Your task to perform on an android device: Do I have any events this weekend? Image 0: 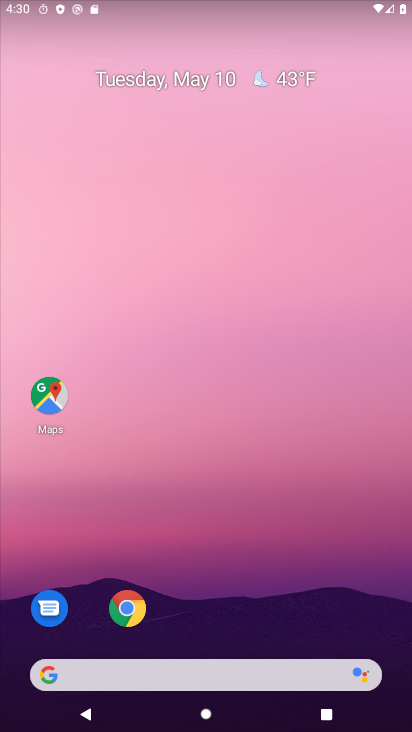
Step 0: drag from (208, 604) to (40, 53)
Your task to perform on an android device: Do I have any events this weekend? Image 1: 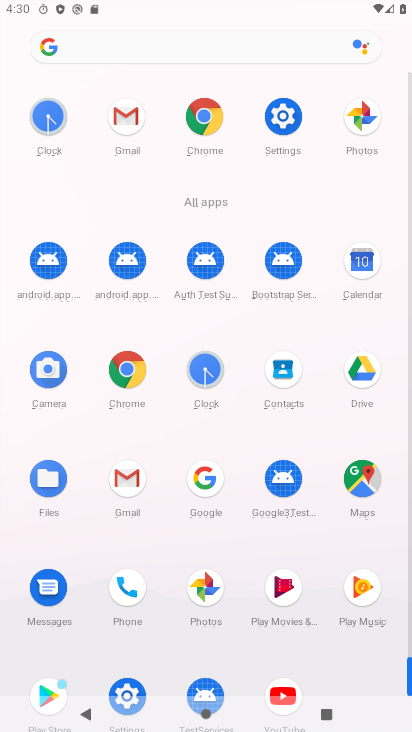
Step 1: click (352, 260)
Your task to perform on an android device: Do I have any events this weekend? Image 2: 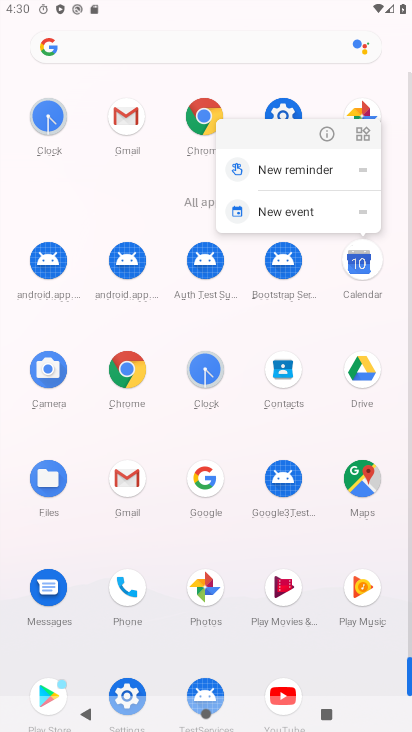
Step 2: click (356, 264)
Your task to perform on an android device: Do I have any events this weekend? Image 3: 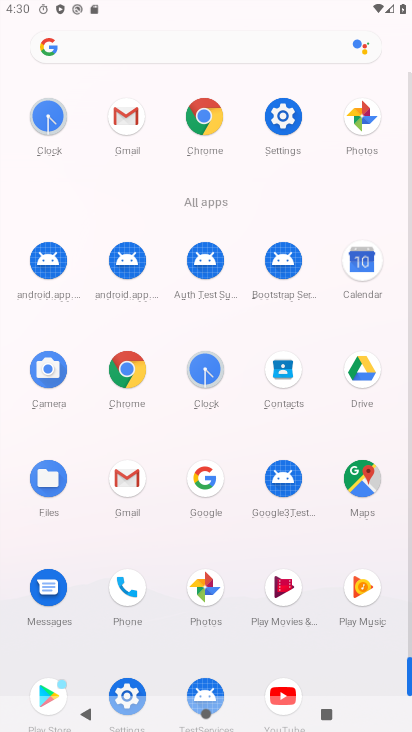
Step 3: click (358, 286)
Your task to perform on an android device: Do I have any events this weekend? Image 4: 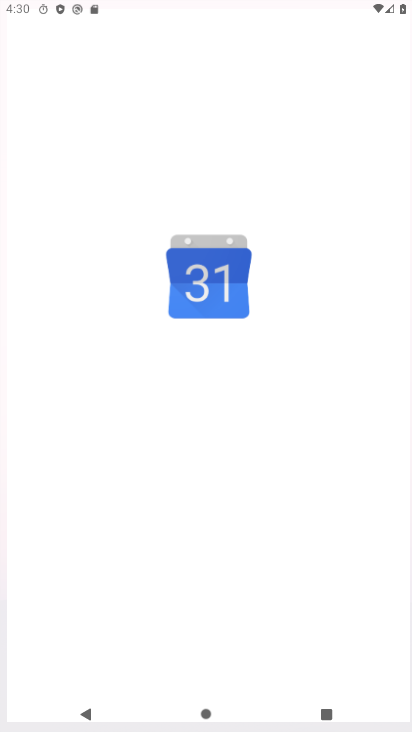
Step 4: click (368, 255)
Your task to perform on an android device: Do I have any events this weekend? Image 5: 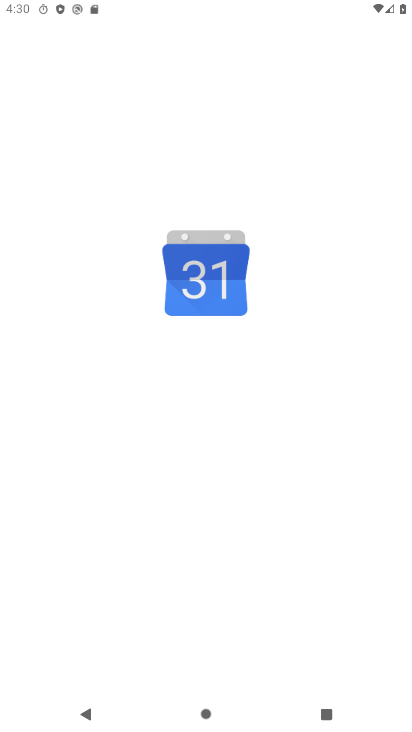
Step 5: click (374, 277)
Your task to perform on an android device: Do I have any events this weekend? Image 6: 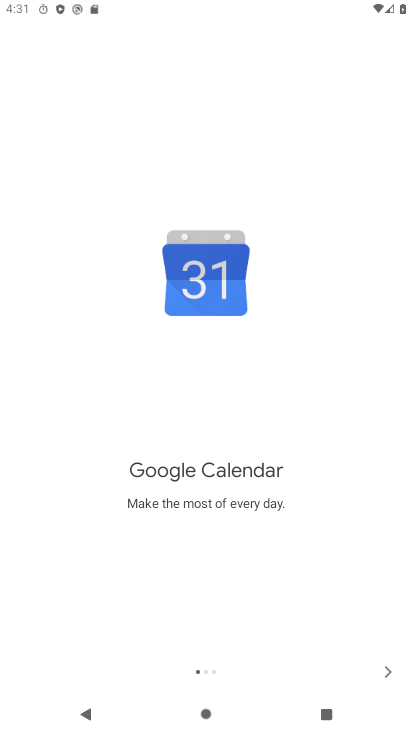
Step 6: click (387, 669)
Your task to perform on an android device: Do I have any events this weekend? Image 7: 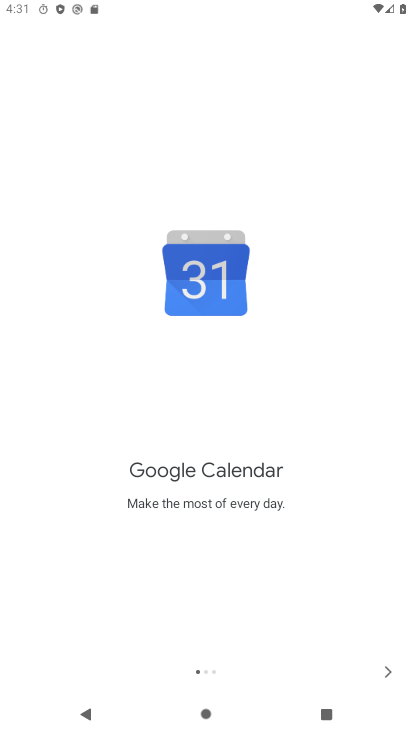
Step 7: click (388, 667)
Your task to perform on an android device: Do I have any events this weekend? Image 8: 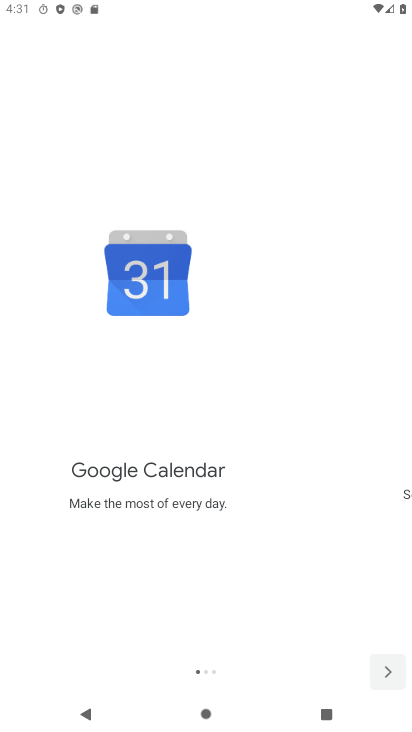
Step 8: click (388, 666)
Your task to perform on an android device: Do I have any events this weekend? Image 9: 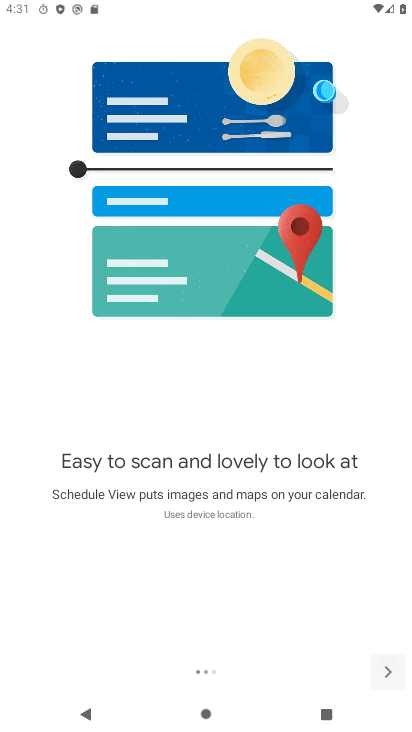
Step 9: click (389, 666)
Your task to perform on an android device: Do I have any events this weekend? Image 10: 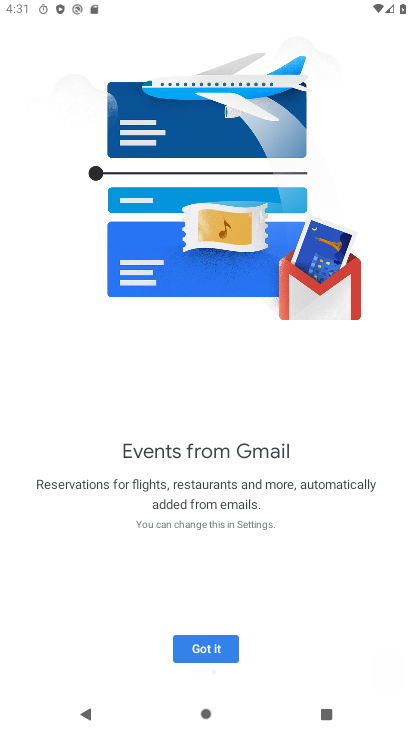
Step 10: click (395, 667)
Your task to perform on an android device: Do I have any events this weekend? Image 11: 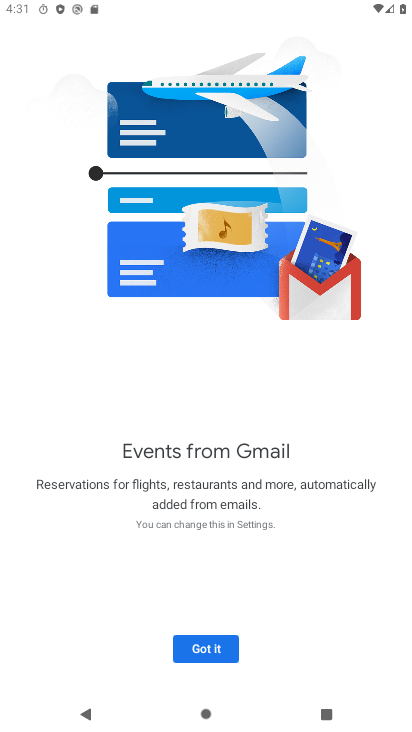
Step 11: click (396, 667)
Your task to perform on an android device: Do I have any events this weekend? Image 12: 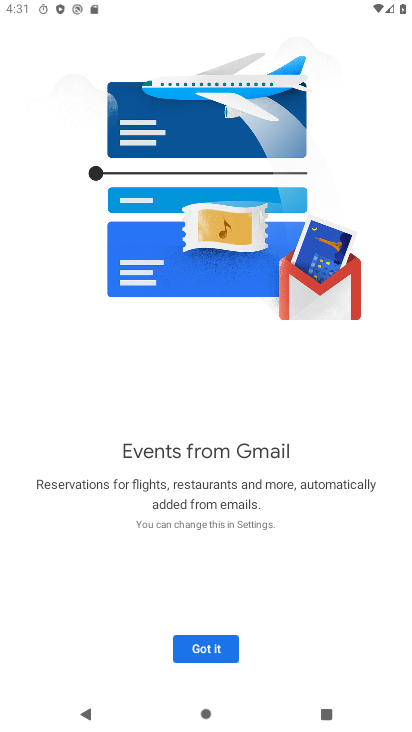
Step 12: click (208, 645)
Your task to perform on an android device: Do I have any events this weekend? Image 13: 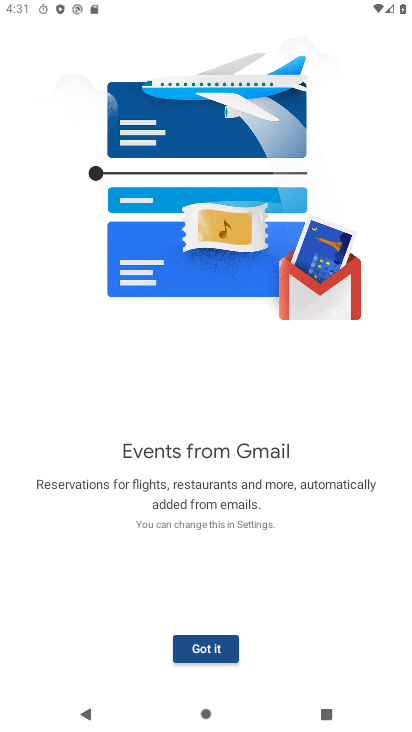
Step 13: click (211, 646)
Your task to perform on an android device: Do I have any events this weekend? Image 14: 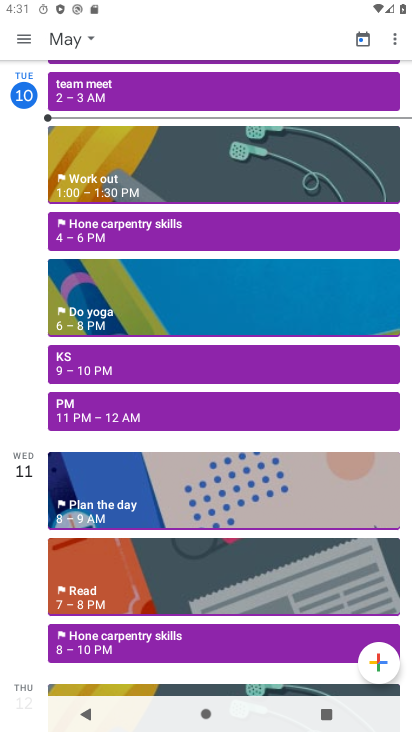
Step 14: click (88, 34)
Your task to perform on an android device: Do I have any events this weekend? Image 15: 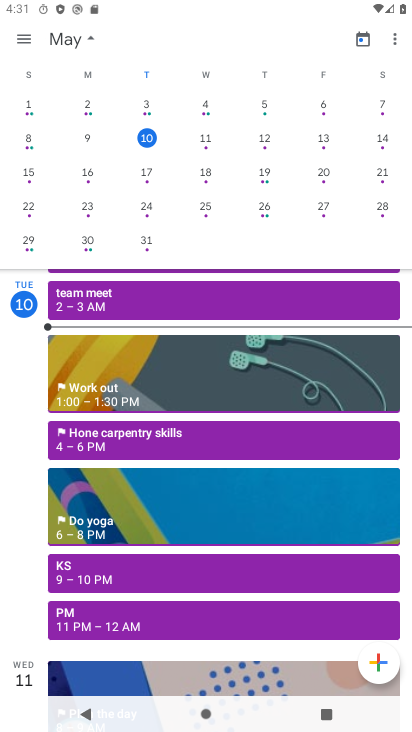
Step 15: click (328, 132)
Your task to perform on an android device: Do I have any events this weekend? Image 16: 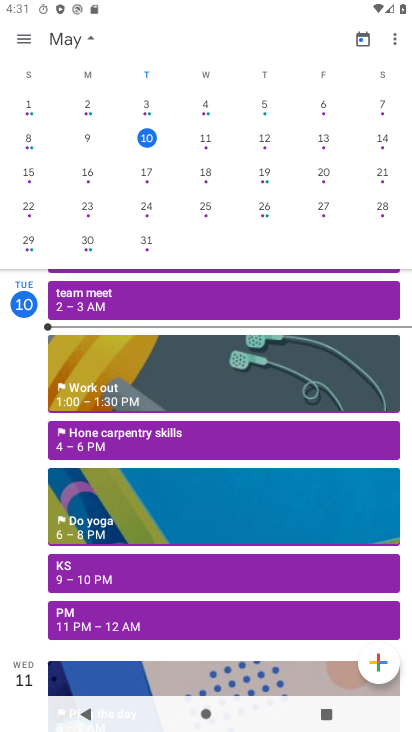
Step 16: click (326, 138)
Your task to perform on an android device: Do I have any events this weekend? Image 17: 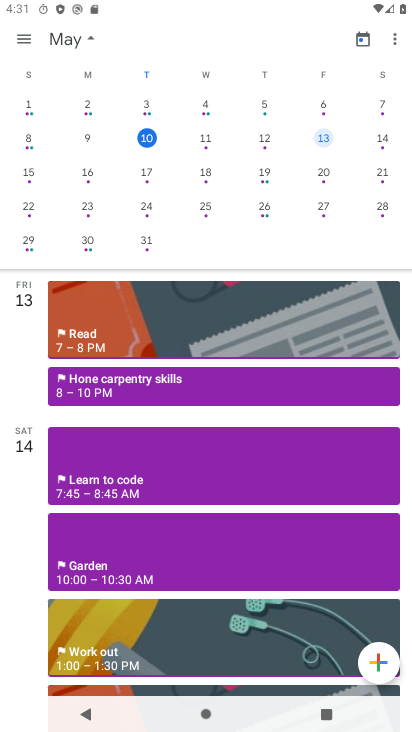
Step 17: click (326, 138)
Your task to perform on an android device: Do I have any events this weekend? Image 18: 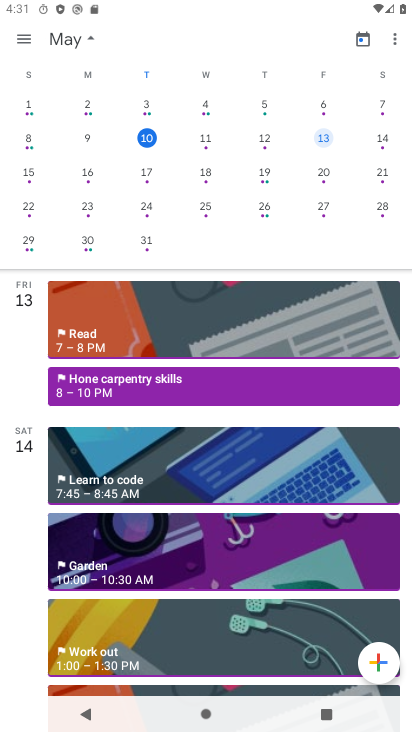
Step 18: click (326, 139)
Your task to perform on an android device: Do I have any events this weekend? Image 19: 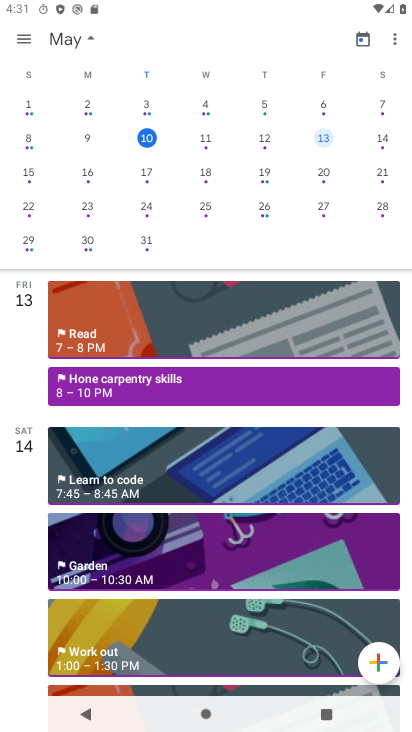
Step 19: task complete